Your task to perform on an android device: Open calendar and show me the third week of next month Image 0: 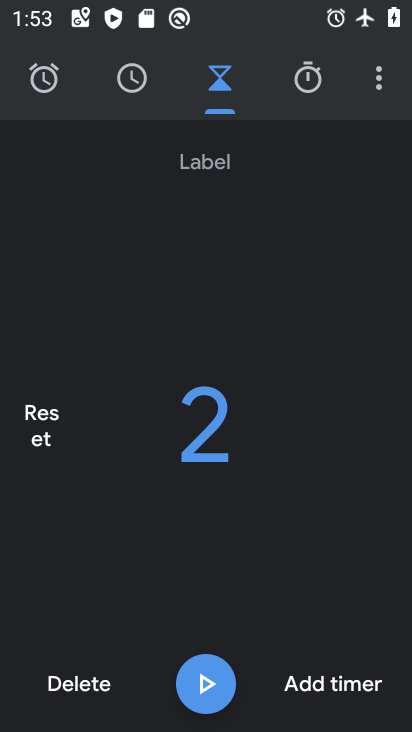
Step 0: press home button
Your task to perform on an android device: Open calendar and show me the third week of next month Image 1: 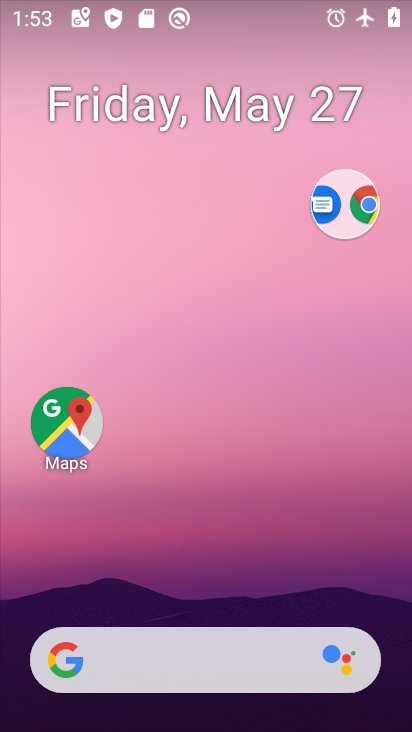
Step 1: drag from (168, 695) to (170, 357)
Your task to perform on an android device: Open calendar and show me the third week of next month Image 2: 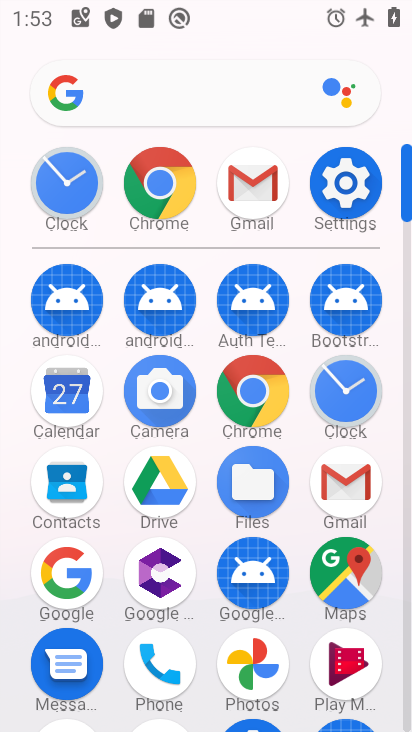
Step 2: click (65, 406)
Your task to perform on an android device: Open calendar and show me the third week of next month Image 3: 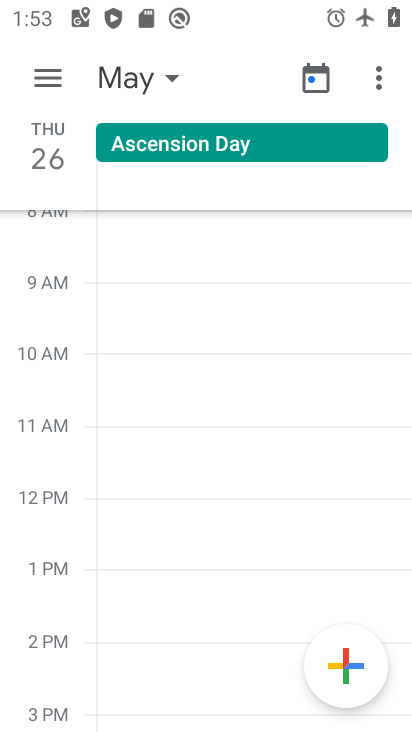
Step 3: click (162, 82)
Your task to perform on an android device: Open calendar and show me the third week of next month Image 4: 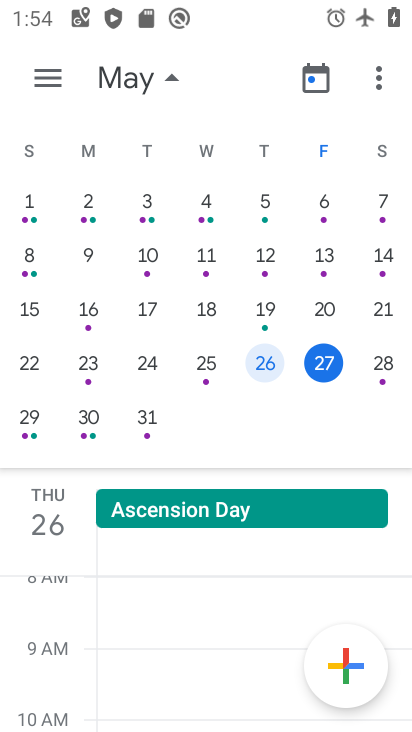
Step 4: drag from (347, 322) to (0, 316)
Your task to perform on an android device: Open calendar and show me the third week of next month Image 5: 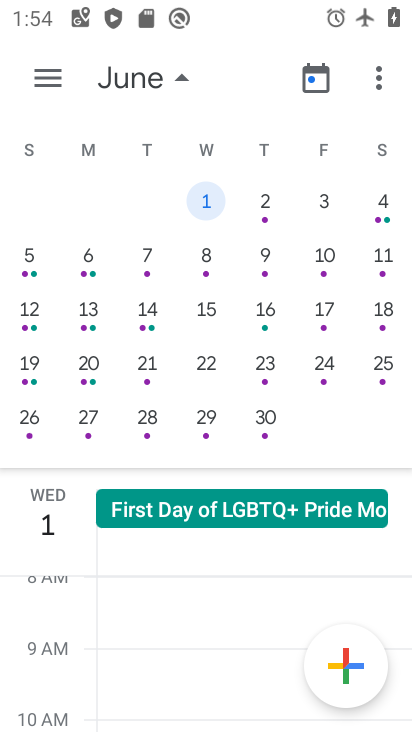
Step 5: click (38, 321)
Your task to perform on an android device: Open calendar and show me the third week of next month Image 6: 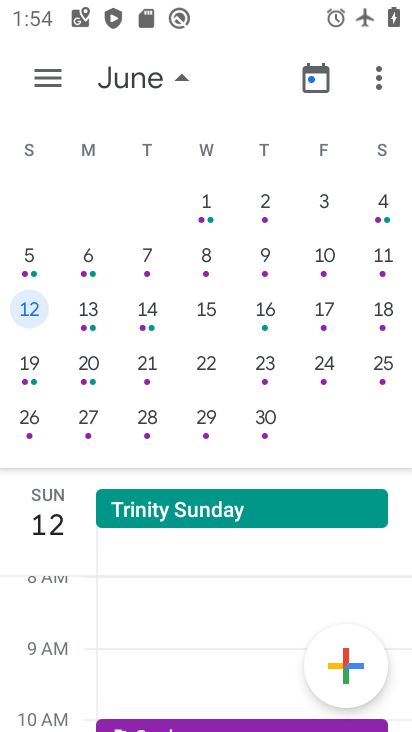
Step 6: task complete